Your task to perform on an android device: Go to Wikipedia Image 0: 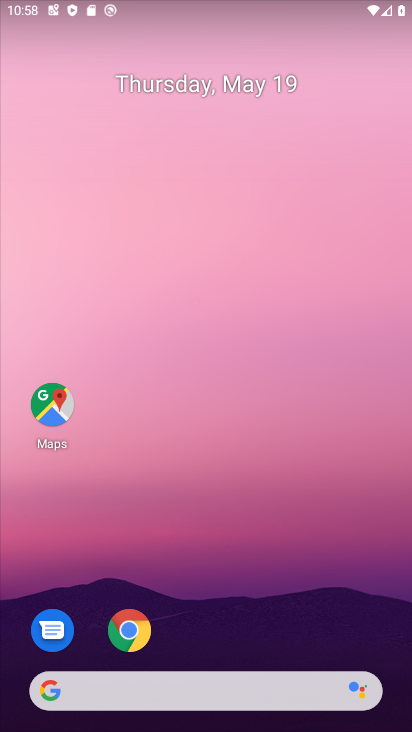
Step 0: click (129, 631)
Your task to perform on an android device: Go to Wikipedia Image 1: 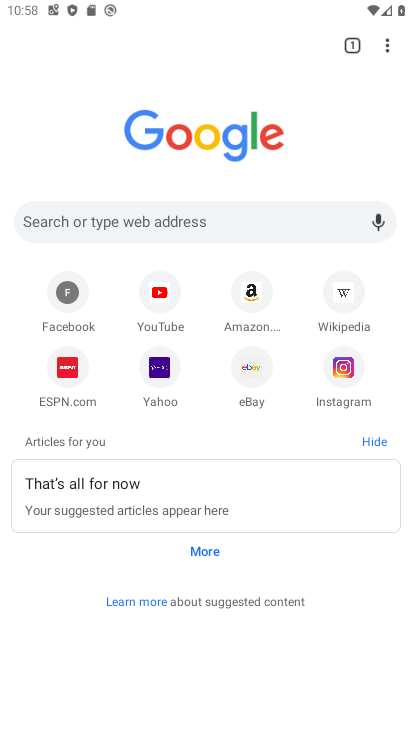
Step 1: click (199, 217)
Your task to perform on an android device: Go to Wikipedia Image 2: 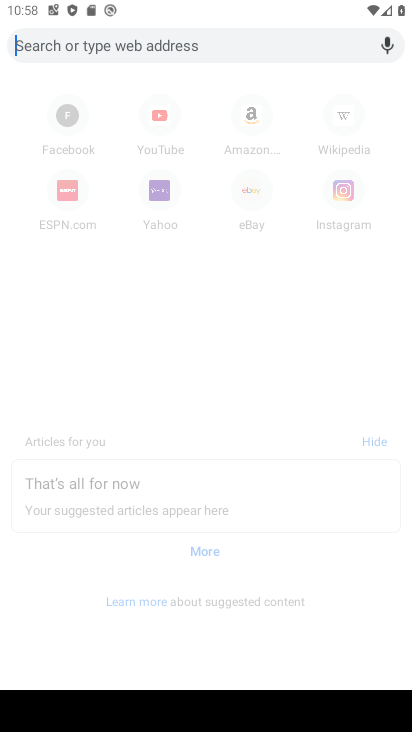
Step 2: click (229, 43)
Your task to perform on an android device: Go to Wikipedia Image 3: 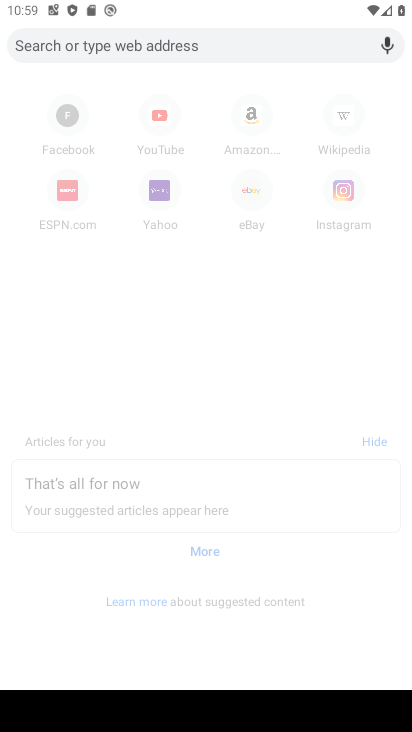
Step 3: type "Wikipedia"
Your task to perform on an android device: Go to Wikipedia Image 4: 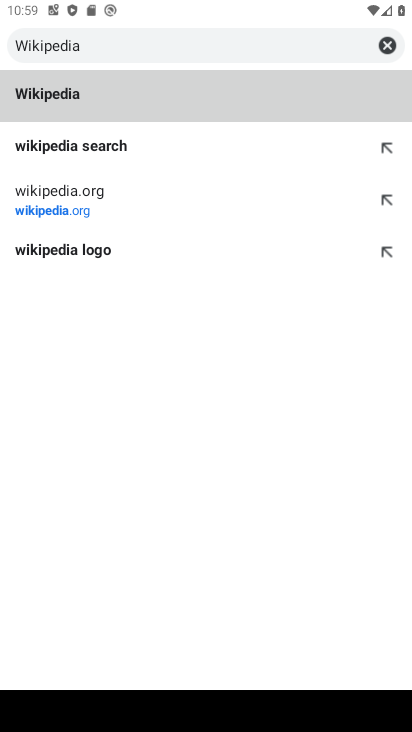
Step 4: click (121, 104)
Your task to perform on an android device: Go to Wikipedia Image 5: 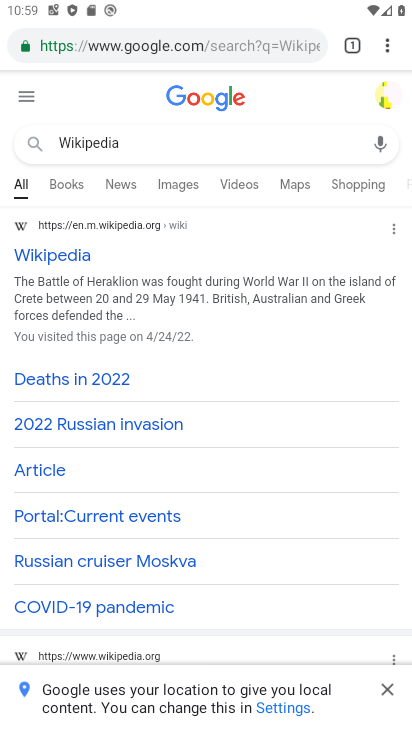
Step 5: click (75, 259)
Your task to perform on an android device: Go to Wikipedia Image 6: 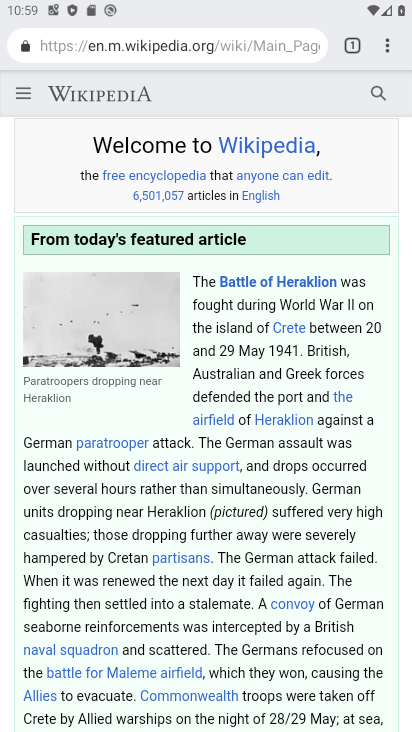
Step 6: task complete